Your task to perform on an android device: Open CNN.com Image 0: 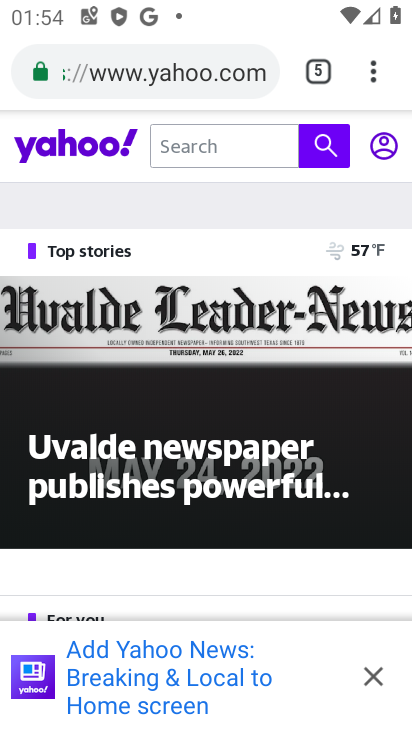
Step 0: press home button
Your task to perform on an android device: Open CNN.com Image 1: 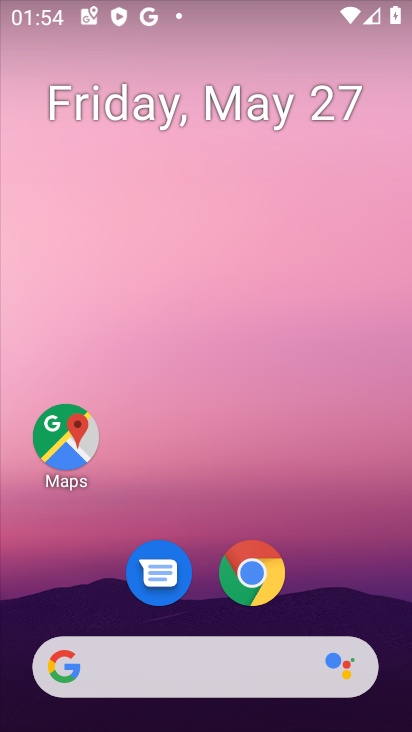
Step 1: click (256, 582)
Your task to perform on an android device: Open CNN.com Image 2: 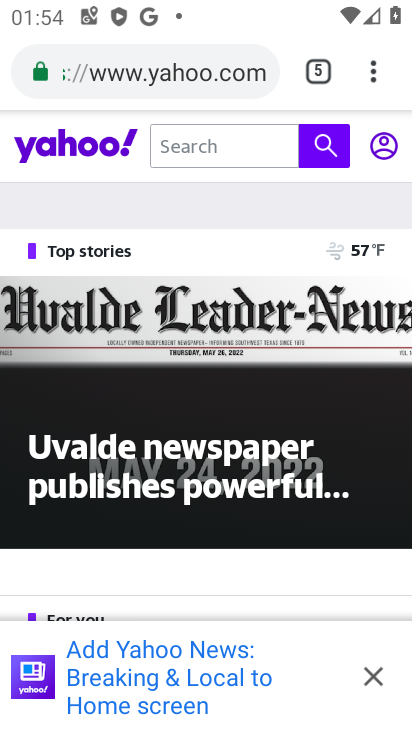
Step 2: click (314, 61)
Your task to perform on an android device: Open CNN.com Image 3: 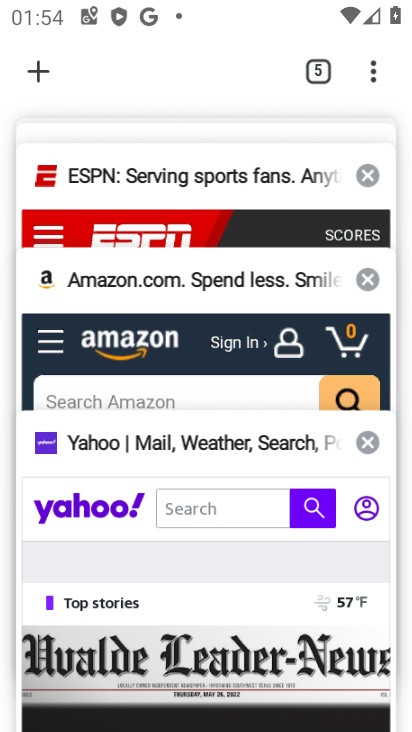
Step 3: click (48, 54)
Your task to perform on an android device: Open CNN.com Image 4: 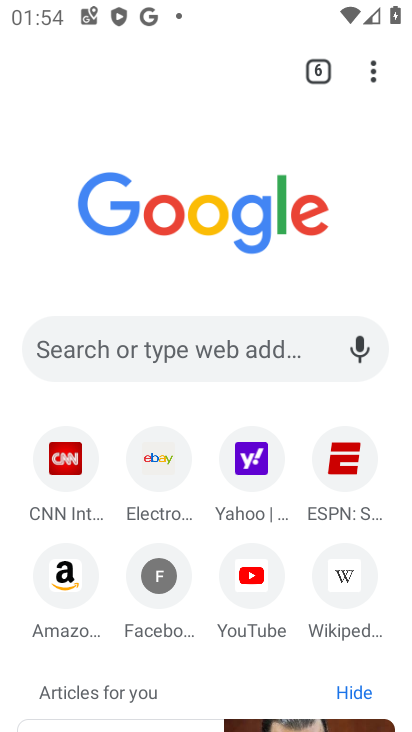
Step 4: click (61, 449)
Your task to perform on an android device: Open CNN.com Image 5: 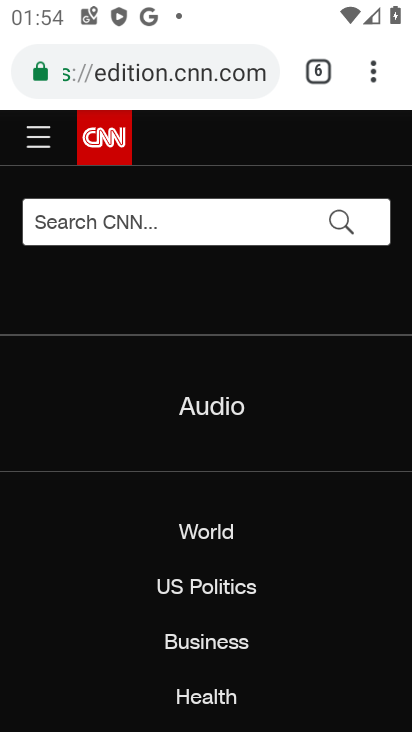
Step 5: task complete